Your task to perform on an android device: change alarm snooze length Image 0: 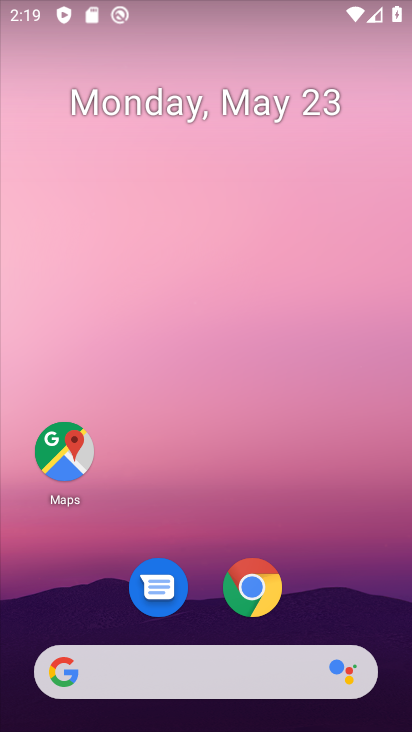
Step 0: drag from (177, 627) to (225, 299)
Your task to perform on an android device: change alarm snooze length Image 1: 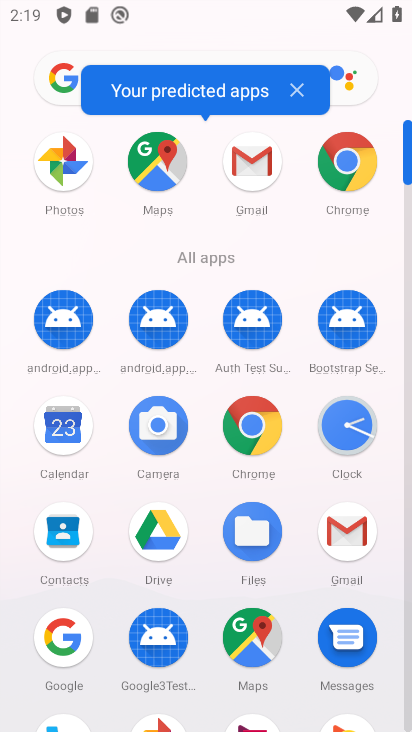
Step 1: click (341, 424)
Your task to perform on an android device: change alarm snooze length Image 2: 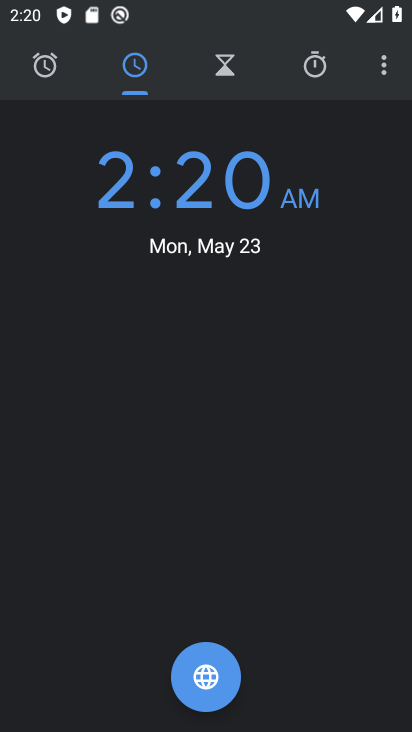
Step 2: click (385, 61)
Your task to perform on an android device: change alarm snooze length Image 3: 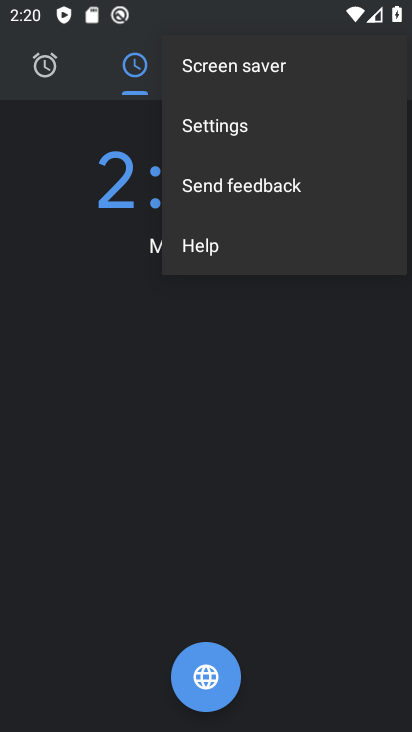
Step 3: click (255, 135)
Your task to perform on an android device: change alarm snooze length Image 4: 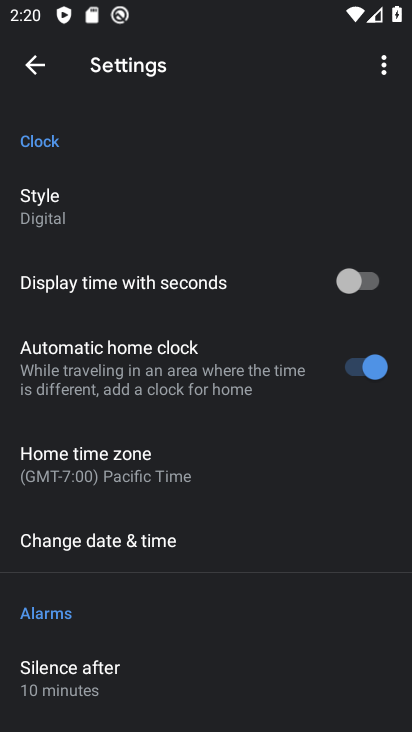
Step 4: drag from (121, 630) to (152, 339)
Your task to perform on an android device: change alarm snooze length Image 5: 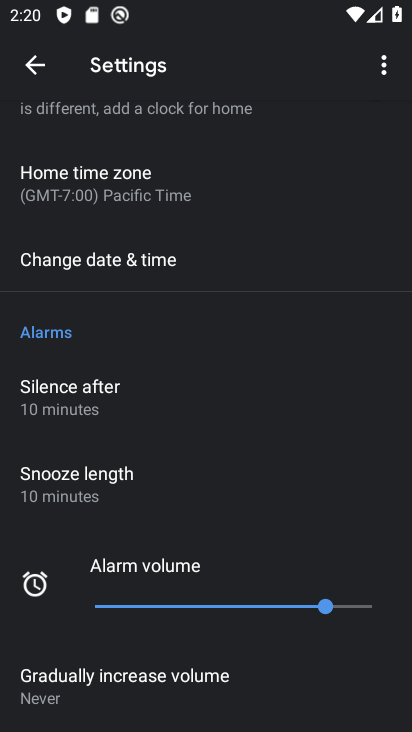
Step 5: click (119, 491)
Your task to perform on an android device: change alarm snooze length Image 6: 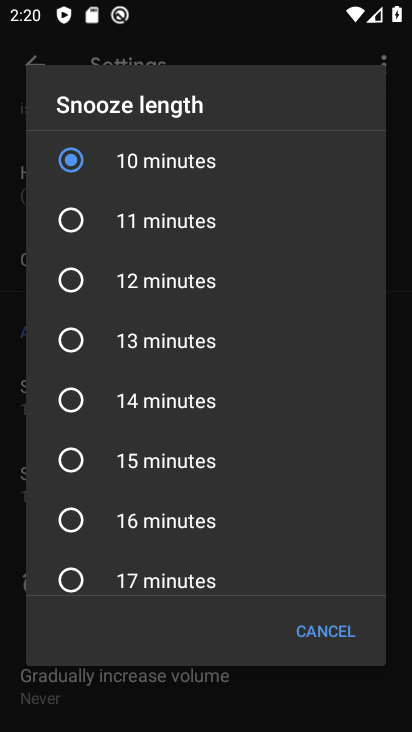
Step 6: click (156, 241)
Your task to perform on an android device: change alarm snooze length Image 7: 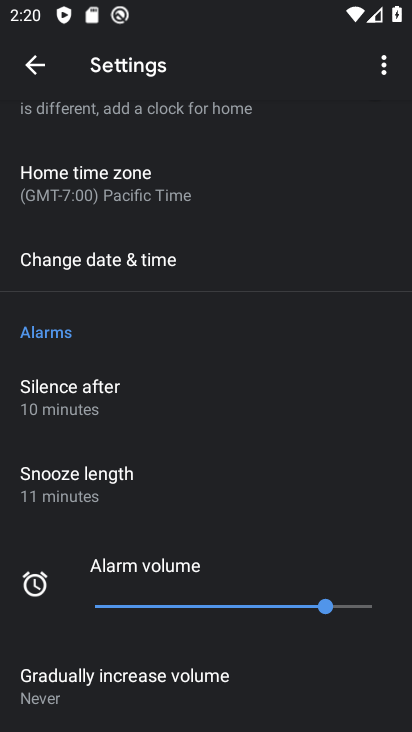
Step 7: task complete